Your task to perform on an android device: turn on bluetooth scan Image 0: 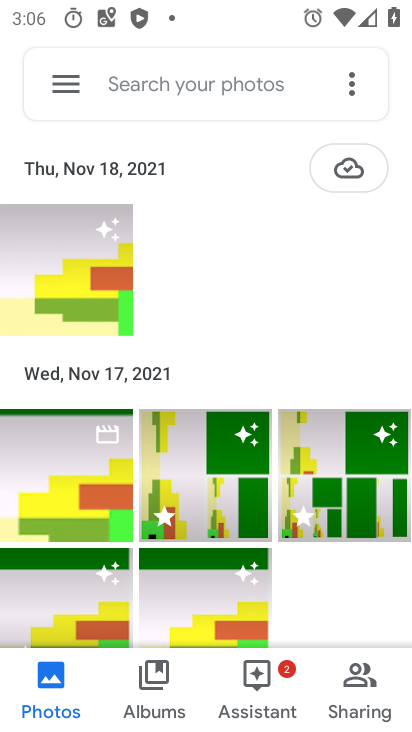
Step 0: press home button
Your task to perform on an android device: turn on bluetooth scan Image 1: 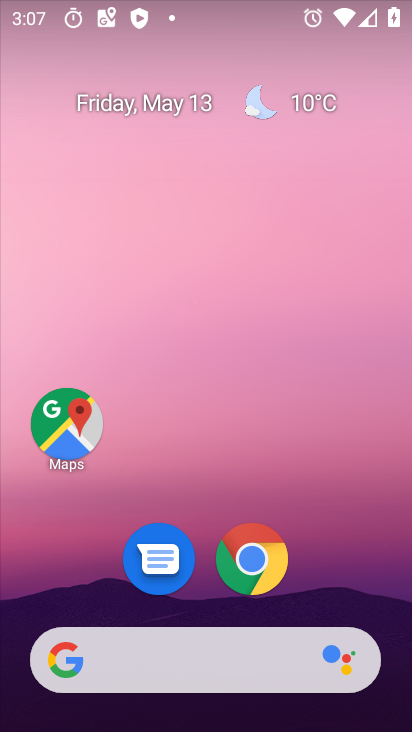
Step 1: drag from (191, 597) to (261, 178)
Your task to perform on an android device: turn on bluetooth scan Image 2: 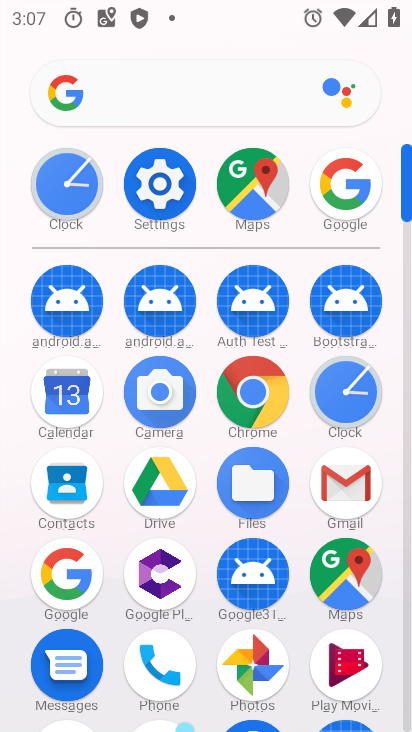
Step 2: click (190, 168)
Your task to perform on an android device: turn on bluetooth scan Image 3: 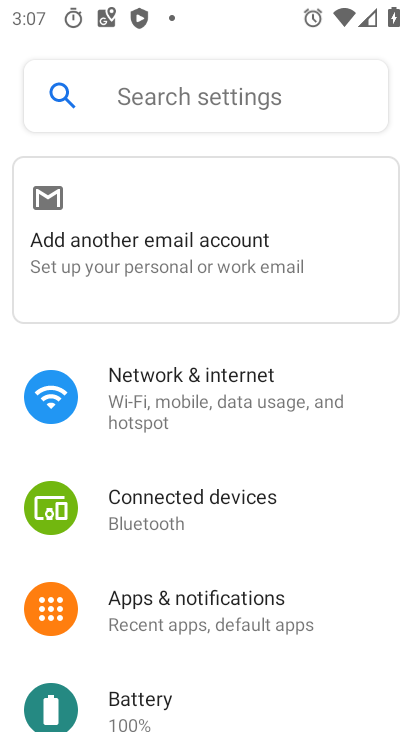
Step 3: drag from (255, 675) to (261, 430)
Your task to perform on an android device: turn on bluetooth scan Image 4: 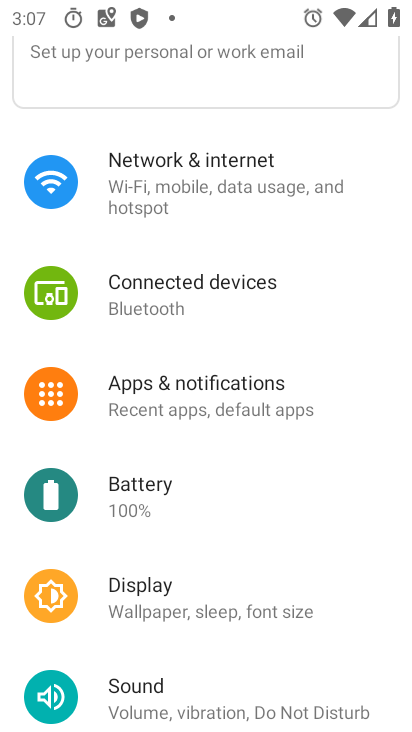
Step 4: drag from (226, 604) to (261, 249)
Your task to perform on an android device: turn on bluetooth scan Image 5: 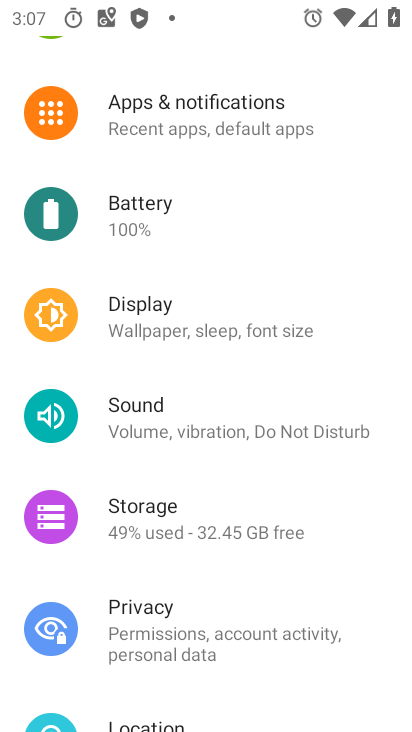
Step 5: drag from (219, 662) to (240, 418)
Your task to perform on an android device: turn on bluetooth scan Image 6: 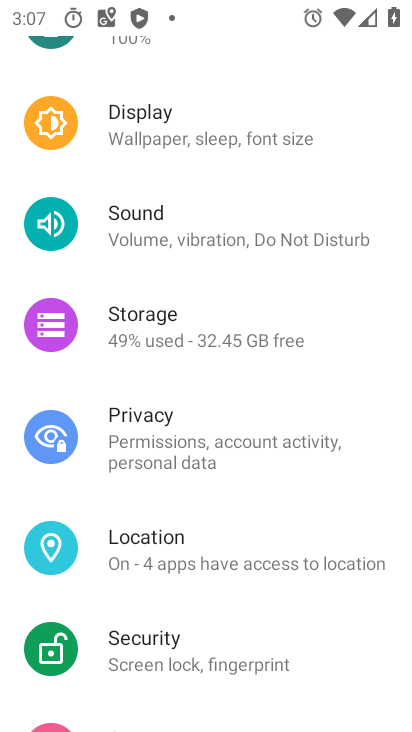
Step 6: click (209, 540)
Your task to perform on an android device: turn on bluetooth scan Image 7: 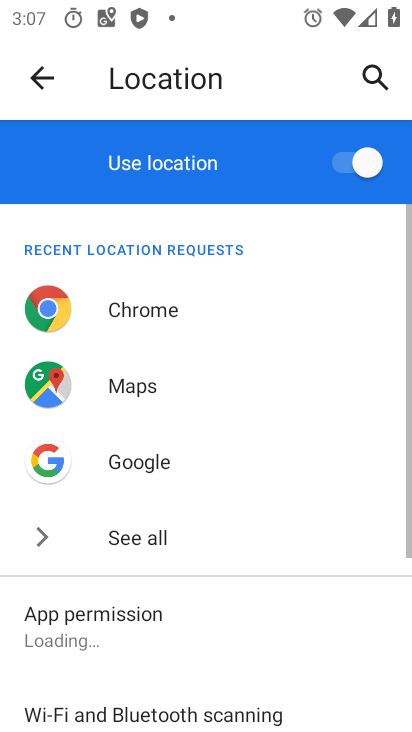
Step 7: drag from (254, 583) to (269, 262)
Your task to perform on an android device: turn on bluetooth scan Image 8: 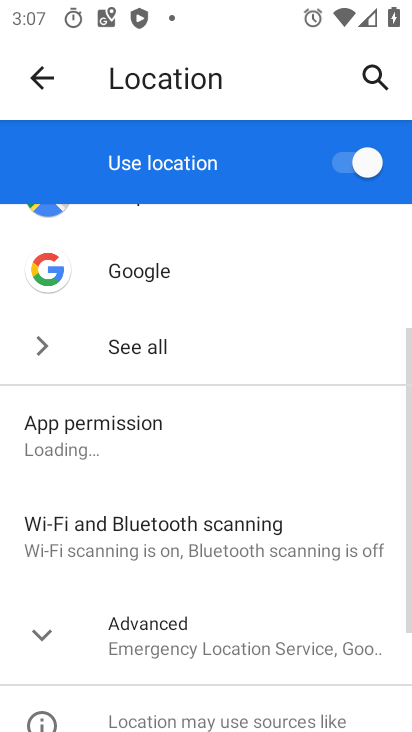
Step 8: click (254, 518)
Your task to perform on an android device: turn on bluetooth scan Image 9: 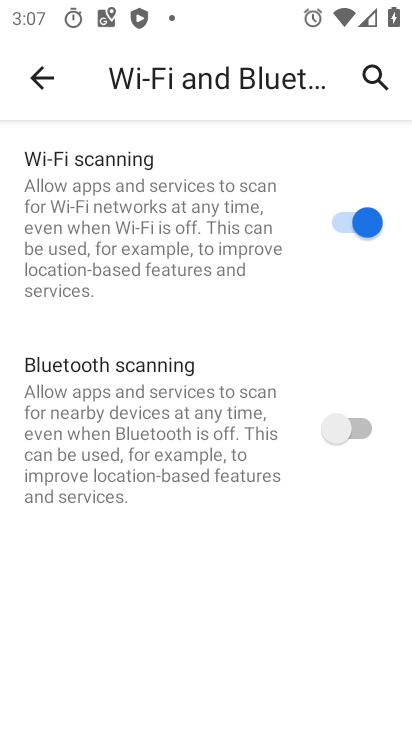
Step 9: click (353, 442)
Your task to perform on an android device: turn on bluetooth scan Image 10: 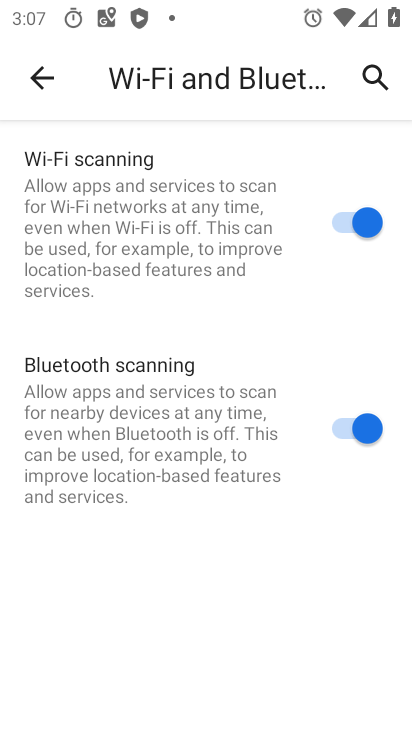
Step 10: task complete